Your task to perform on an android device: turn on showing notifications on the lock screen Image 0: 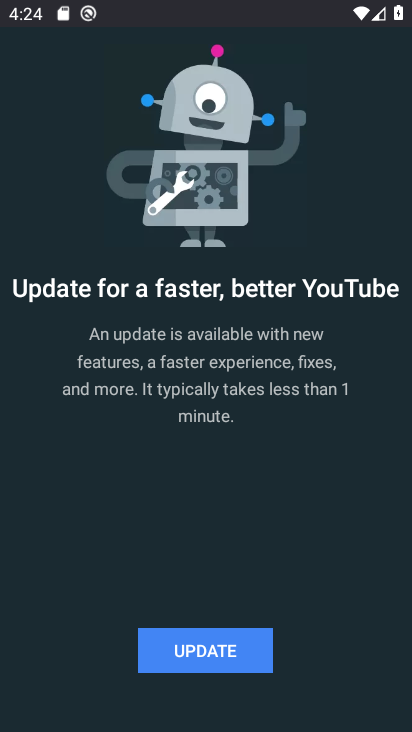
Step 0: press back button
Your task to perform on an android device: turn on showing notifications on the lock screen Image 1: 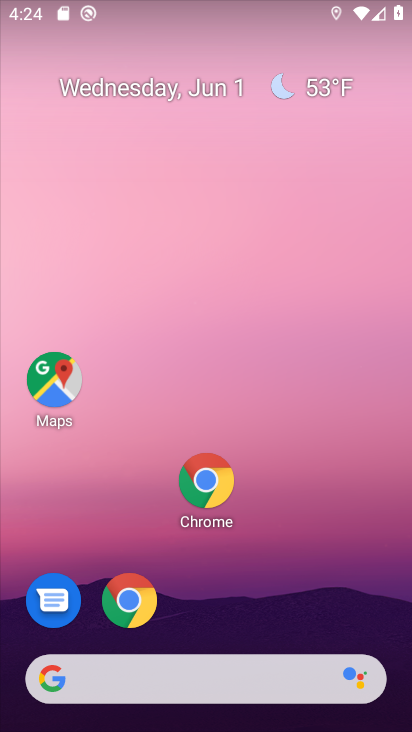
Step 1: drag from (293, 729) to (141, 97)
Your task to perform on an android device: turn on showing notifications on the lock screen Image 2: 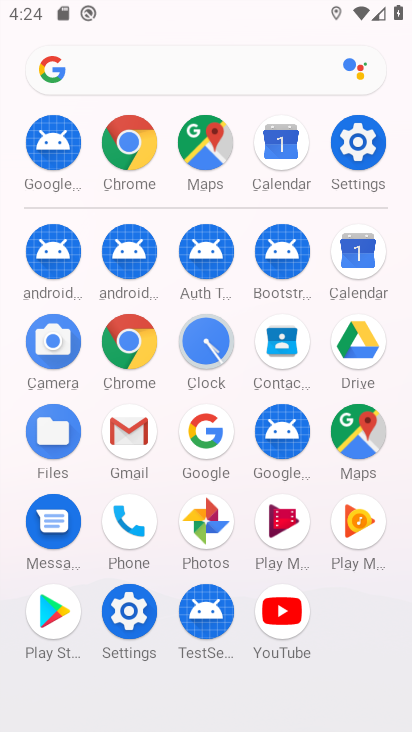
Step 2: click (358, 141)
Your task to perform on an android device: turn on showing notifications on the lock screen Image 3: 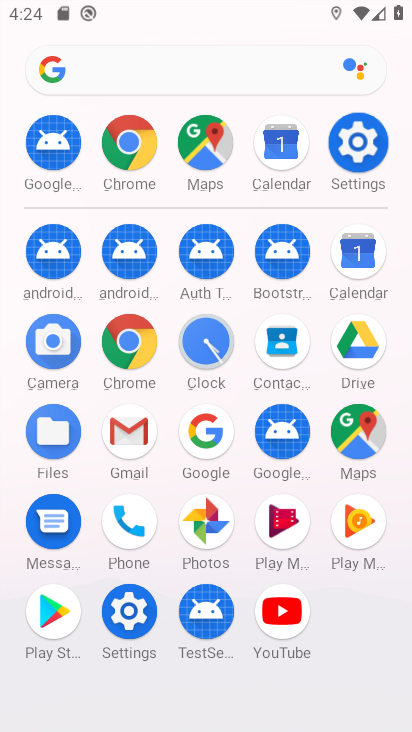
Step 3: click (358, 141)
Your task to perform on an android device: turn on showing notifications on the lock screen Image 4: 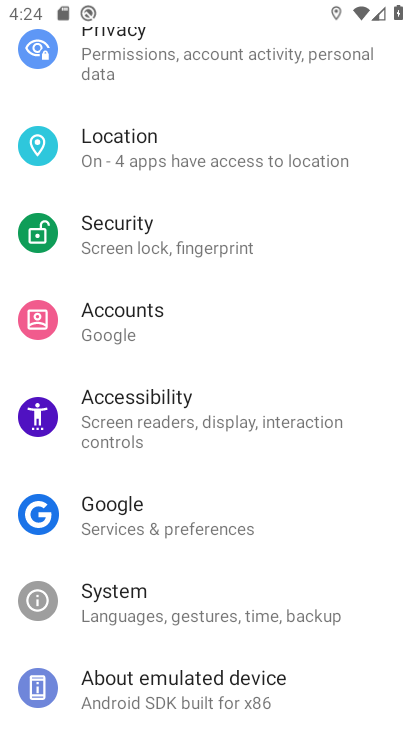
Step 4: click (358, 141)
Your task to perform on an android device: turn on showing notifications on the lock screen Image 5: 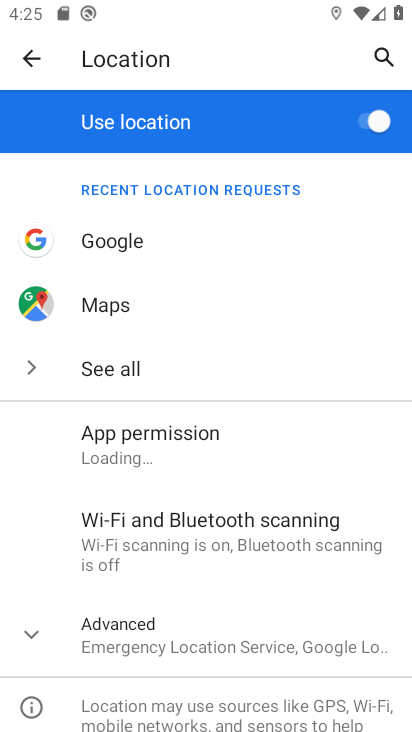
Step 5: click (32, 58)
Your task to perform on an android device: turn on showing notifications on the lock screen Image 6: 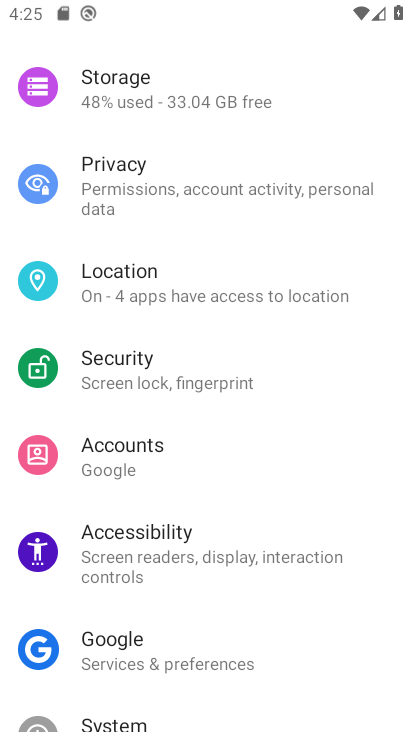
Step 6: drag from (170, 222) to (177, 493)
Your task to perform on an android device: turn on showing notifications on the lock screen Image 7: 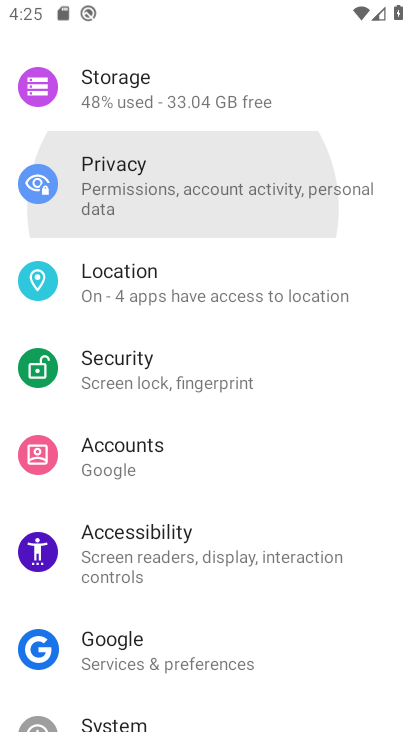
Step 7: drag from (213, 143) to (181, 498)
Your task to perform on an android device: turn on showing notifications on the lock screen Image 8: 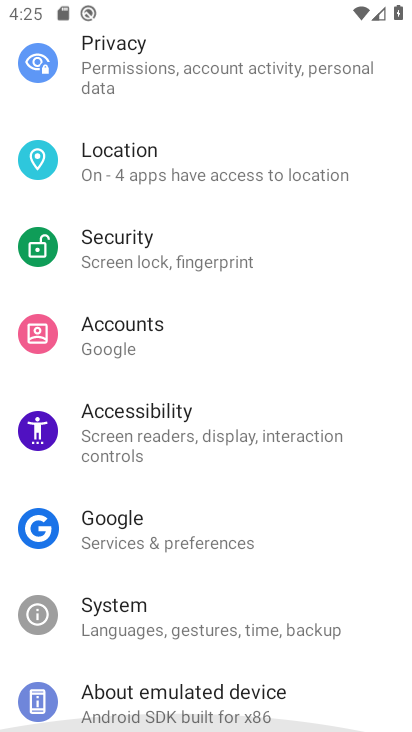
Step 8: drag from (130, 184) to (204, 416)
Your task to perform on an android device: turn on showing notifications on the lock screen Image 9: 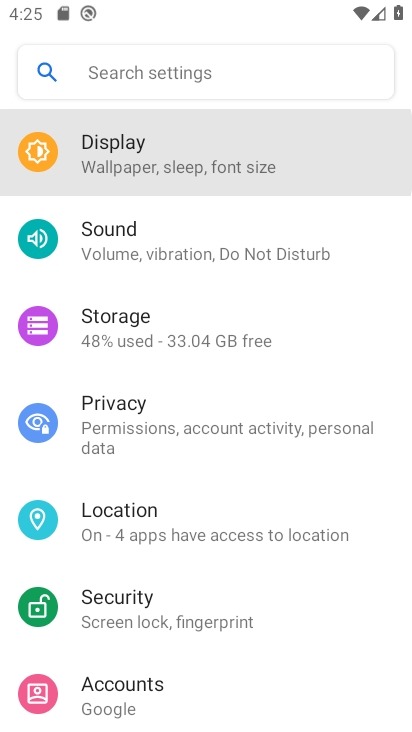
Step 9: drag from (200, 187) to (225, 487)
Your task to perform on an android device: turn on showing notifications on the lock screen Image 10: 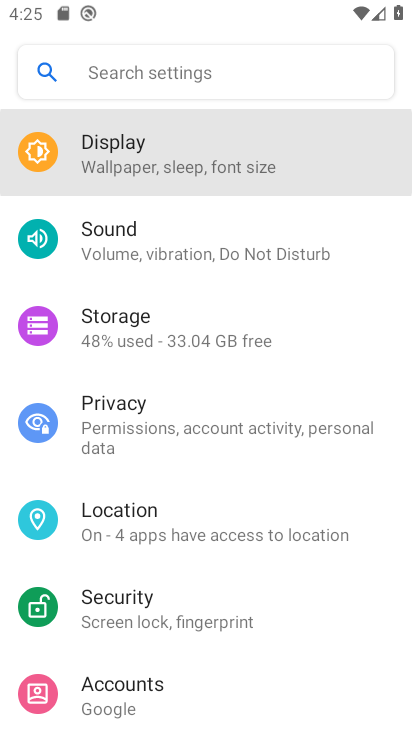
Step 10: drag from (146, 220) to (212, 515)
Your task to perform on an android device: turn on showing notifications on the lock screen Image 11: 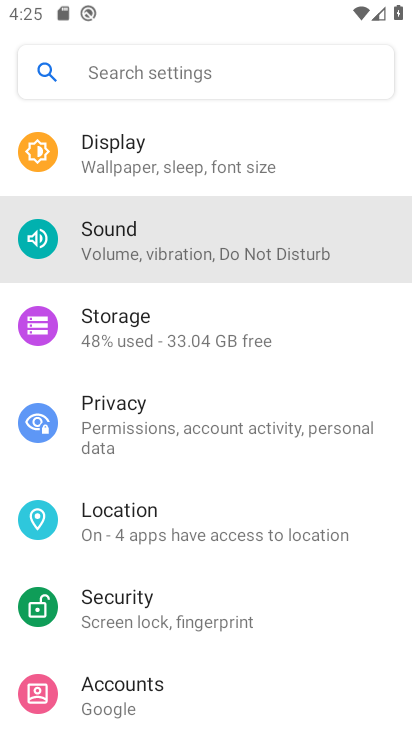
Step 11: drag from (164, 253) to (221, 494)
Your task to perform on an android device: turn on showing notifications on the lock screen Image 12: 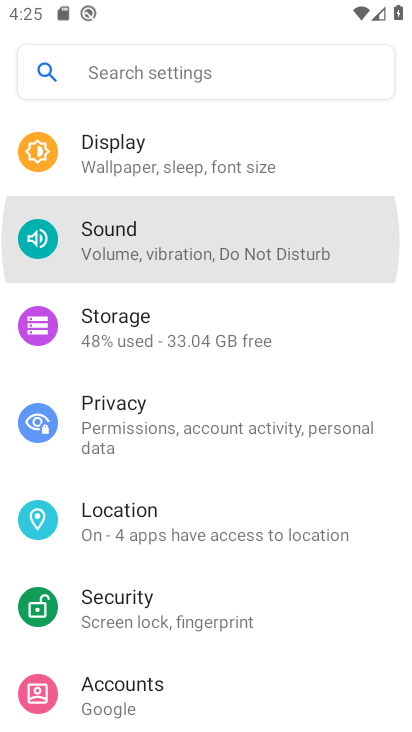
Step 12: drag from (194, 318) to (185, 467)
Your task to perform on an android device: turn on showing notifications on the lock screen Image 13: 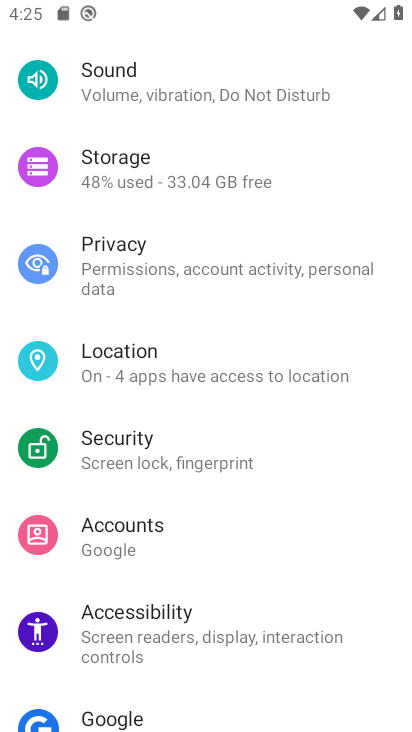
Step 13: drag from (98, 224) to (184, 522)
Your task to perform on an android device: turn on showing notifications on the lock screen Image 14: 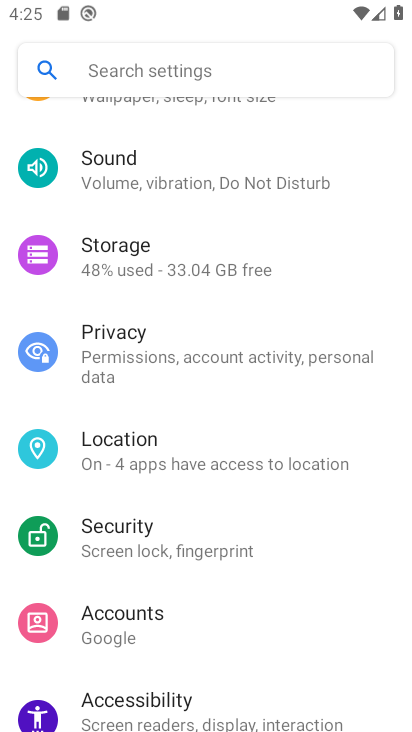
Step 14: drag from (178, 551) to (145, 226)
Your task to perform on an android device: turn on showing notifications on the lock screen Image 15: 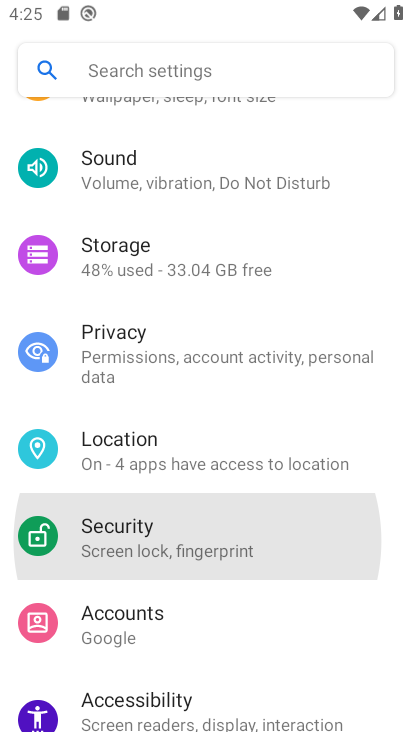
Step 15: drag from (177, 505) to (128, 189)
Your task to perform on an android device: turn on showing notifications on the lock screen Image 16: 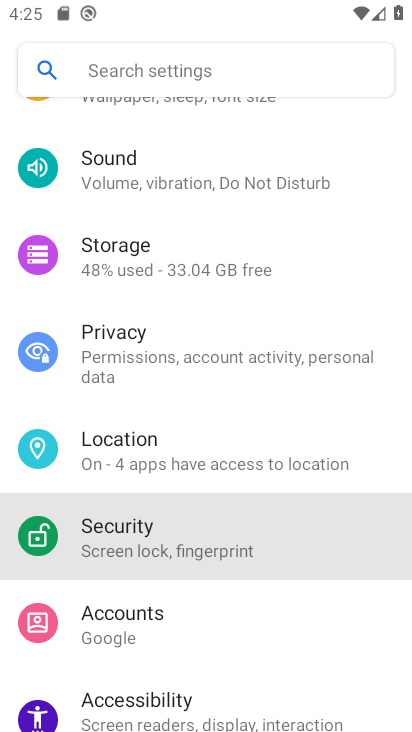
Step 16: drag from (168, 455) to (149, 251)
Your task to perform on an android device: turn on showing notifications on the lock screen Image 17: 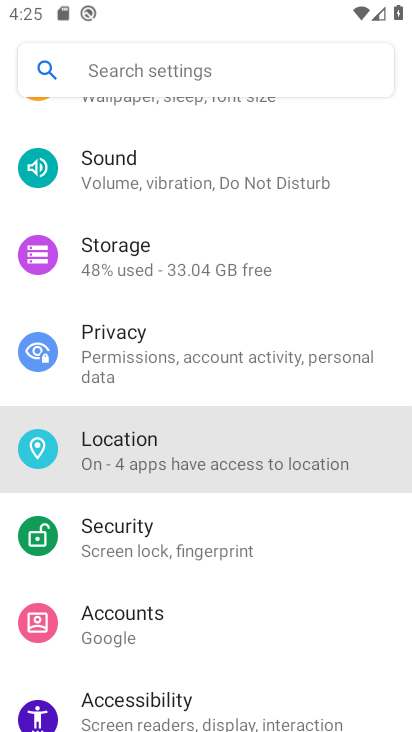
Step 17: drag from (209, 522) to (109, 104)
Your task to perform on an android device: turn on showing notifications on the lock screen Image 18: 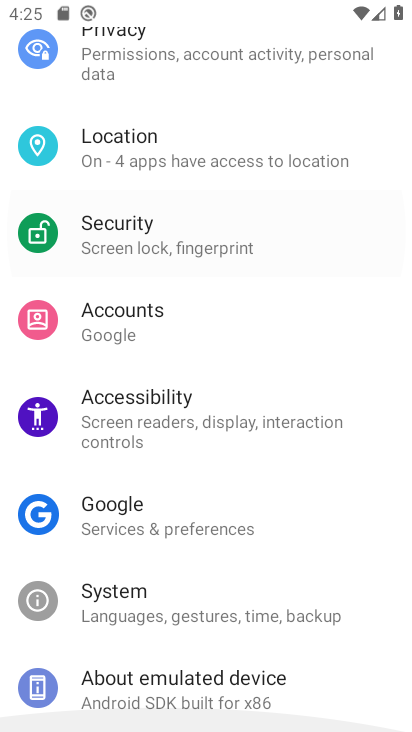
Step 18: drag from (235, 472) to (166, 108)
Your task to perform on an android device: turn on showing notifications on the lock screen Image 19: 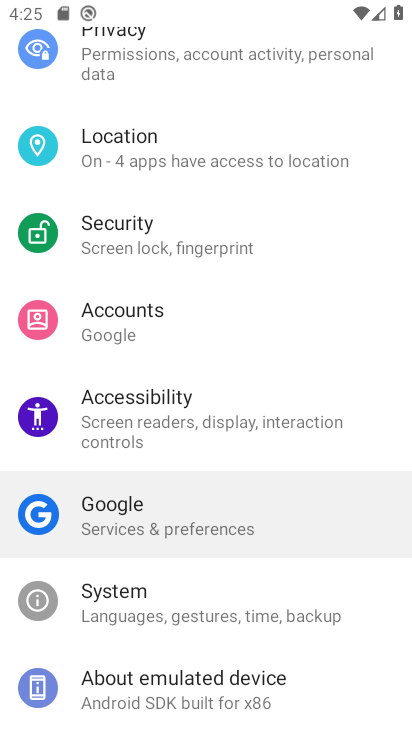
Step 19: drag from (233, 499) to (143, 202)
Your task to perform on an android device: turn on showing notifications on the lock screen Image 20: 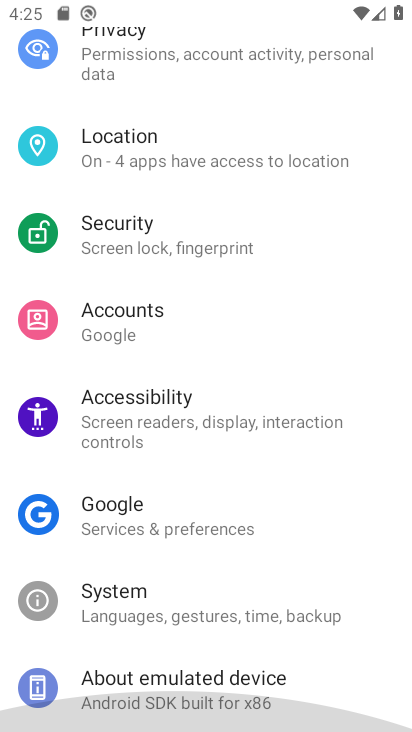
Step 20: drag from (256, 551) to (143, 252)
Your task to perform on an android device: turn on showing notifications on the lock screen Image 21: 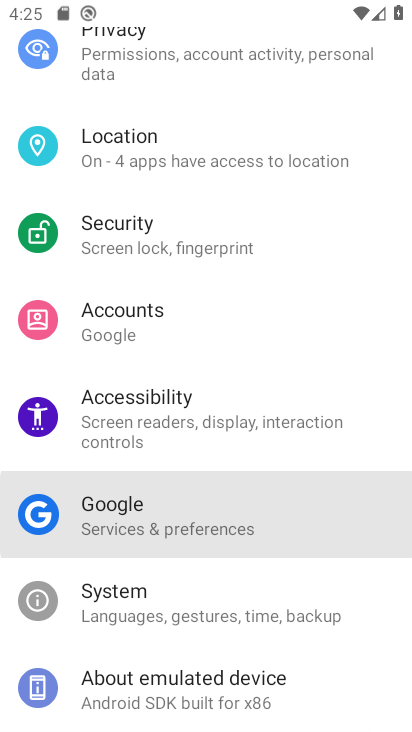
Step 21: drag from (215, 562) to (135, 247)
Your task to perform on an android device: turn on showing notifications on the lock screen Image 22: 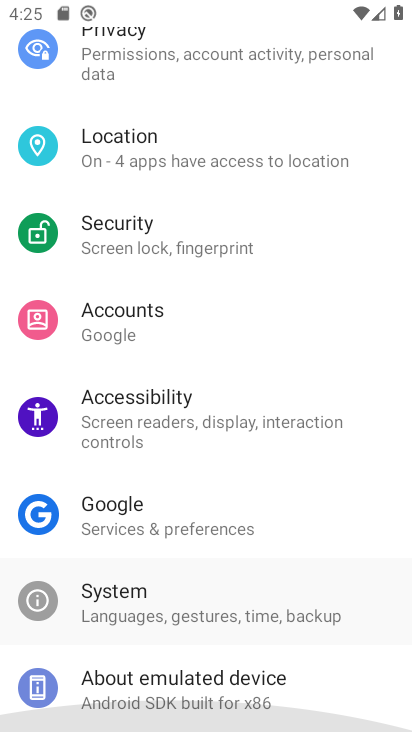
Step 22: drag from (212, 554) to (118, 153)
Your task to perform on an android device: turn on showing notifications on the lock screen Image 23: 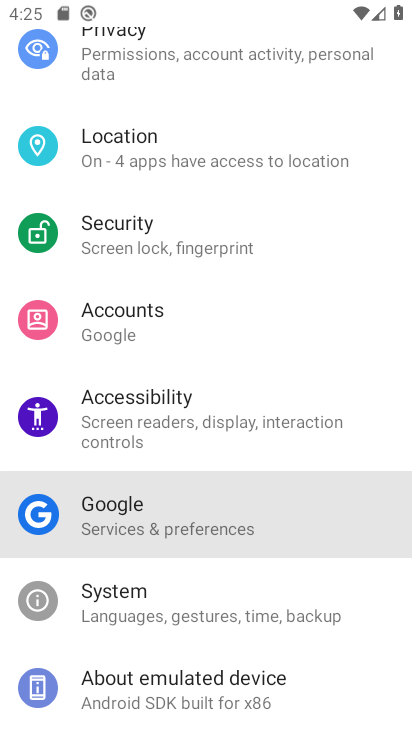
Step 23: drag from (137, 417) to (98, 153)
Your task to perform on an android device: turn on showing notifications on the lock screen Image 24: 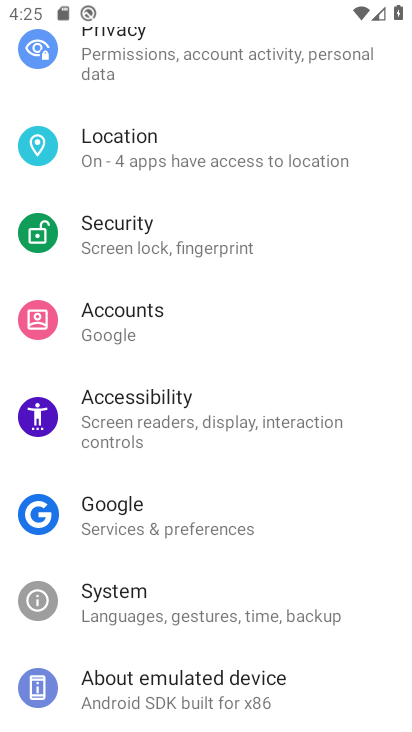
Step 24: press back button
Your task to perform on an android device: turn on showing notifications on the lock screen Image 25: 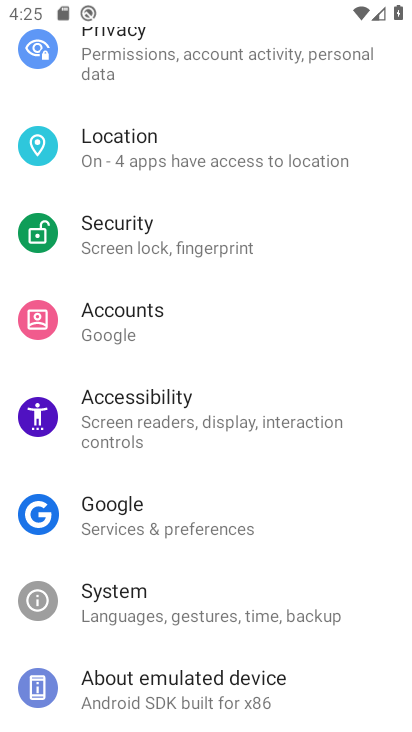
Step 25: press back button
Your task to perform on an android device: turn on showing notifications on the lock screen Image 26: 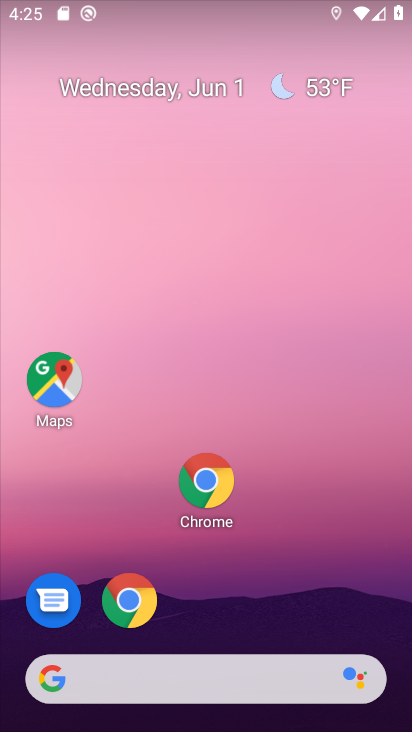
Step 26: drag from (265, 668) to (132, 126)
Your task to perform on an android device: turn on showing notifications on the lock screen Image 27: 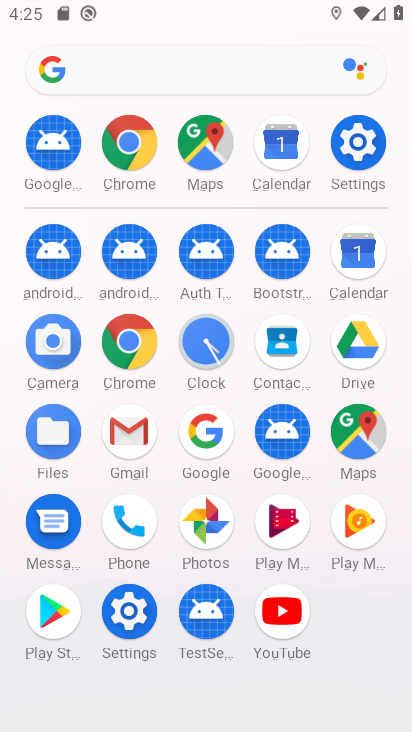
Step 27: click (357, 143)
Your task to perform on an android device: turn on showing notifications on the lock screen Image 28: 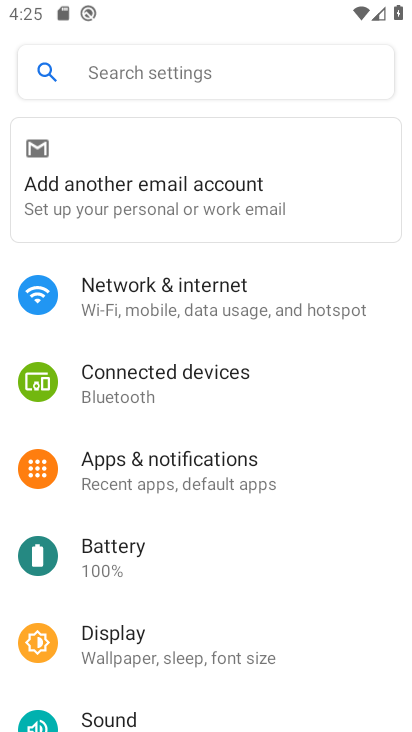
Step 28: click (149, 465)
Your task to perform on an android device: turn on showing notifications on the lock screen Image 29: 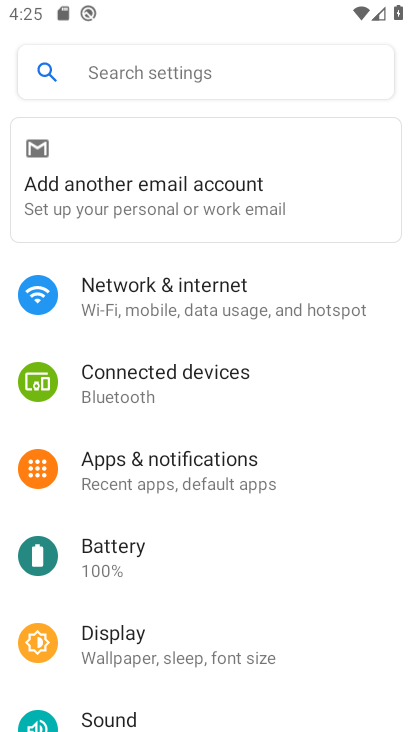
Step 29: click (148, 466)
Your task to perform on an android device: turn on showing notifications on the lock screen Image 30: 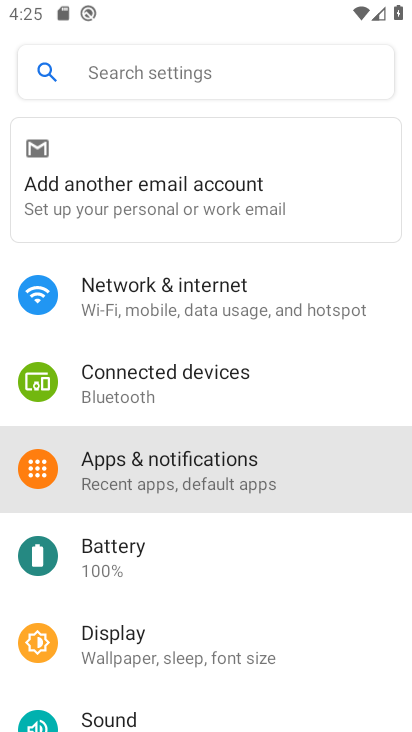
Step 30: click (148, 466)
Your task to perform on an android device: turn on showing notifications on the lock screen Image 31: 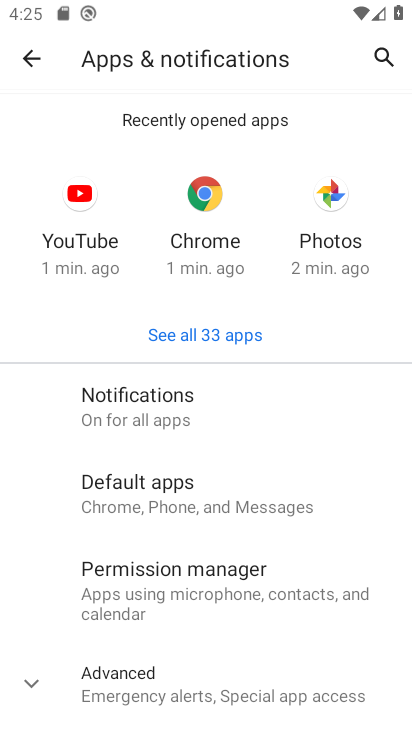
Step 31: click (136, 394)
Your task to perform on an android device: turn on showing notifications on the lock screen Image 32: 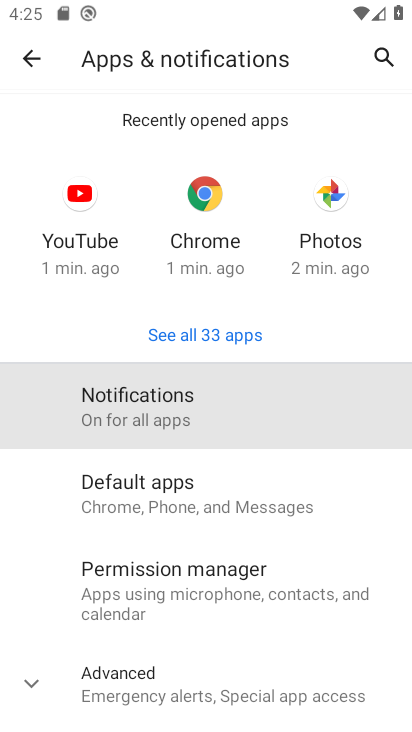
Step 32: click (131, 404)
Your task to perform on an android device: turn on showing notifications on the lock screen Image 33: 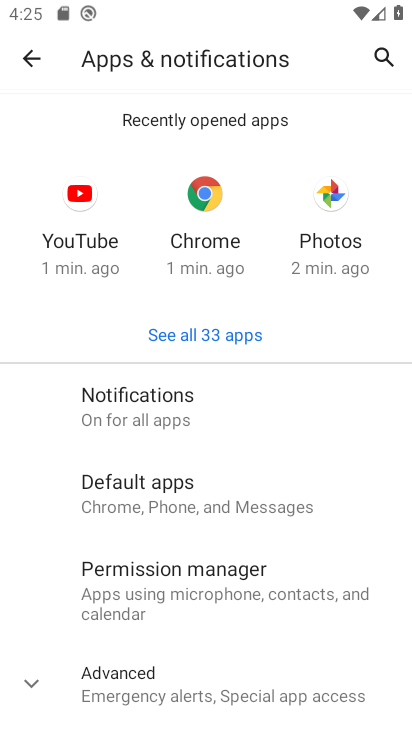
Step 33: click (132, 410)
Your task to perform on an android device: turn on showing notifications on the lock screen Image 34: 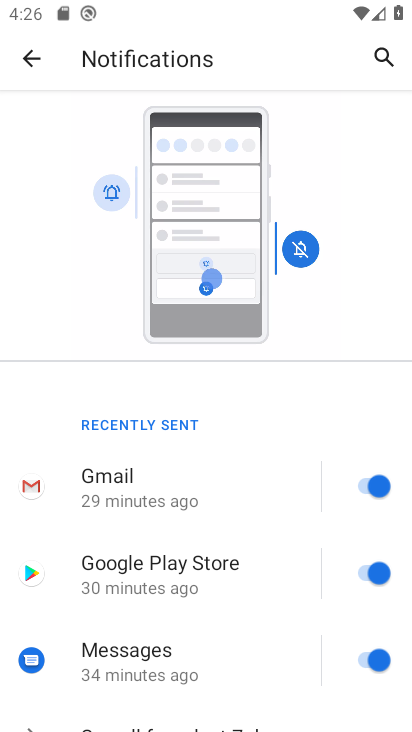
Step 34: drag from (221, 623) to (130, 133)
Your task to perform on an android device: turn on showing notifications on the lock screen Image 35: 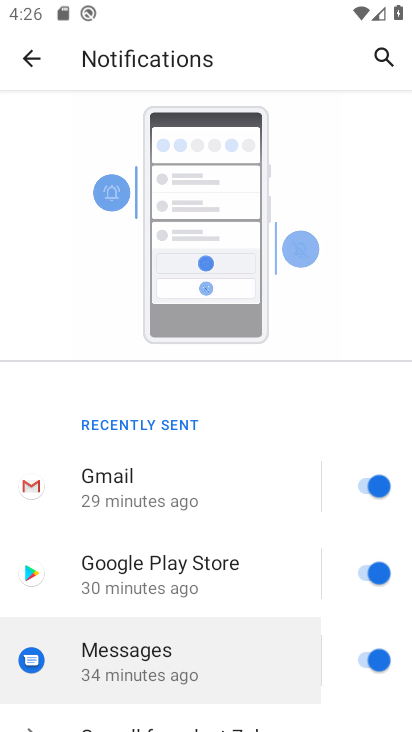
Step 35: drag from (228, 555) to (167, 113)
Your task to perform on an android device: turn on showing notifications on the lock screen Image 36: 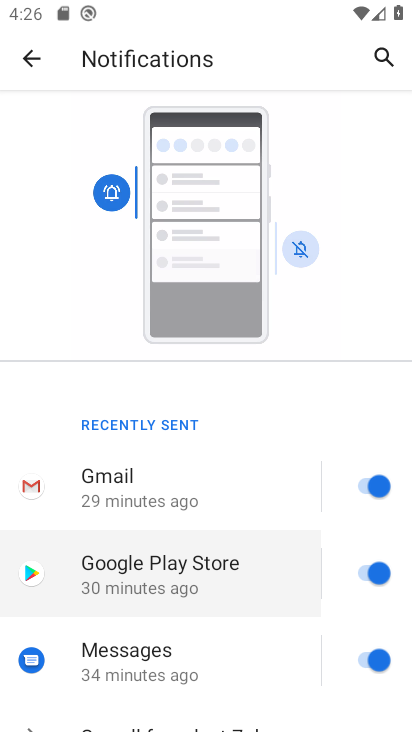
Step 36: drag from (201, 512) to (120, 87)
Your task to perform on an android device: turn on showing notifications on the lock screen Image 37: 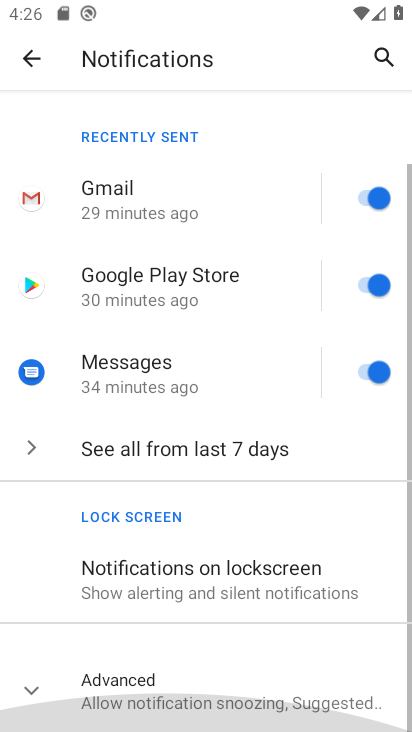
Step 37: drag from (196, 540) to (139, 95)
Your task to perform on an android device: turn on showing notifications on the lock screen Image 38: 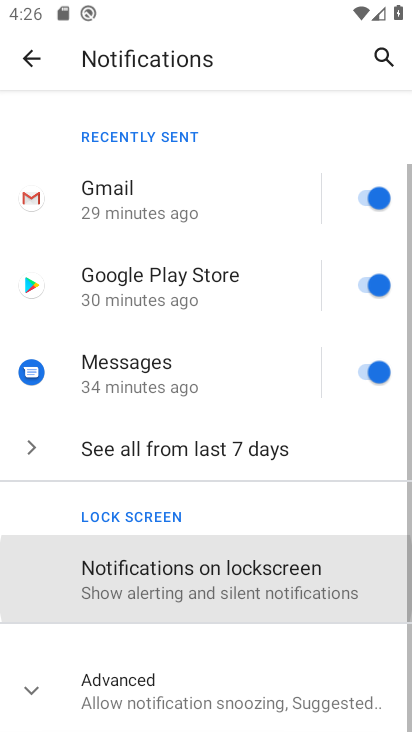
Step 38: drag from (204, 553) to (143, 45)
Your task to perform on an android device: turn on showing notifications on the lock screen Image 39: 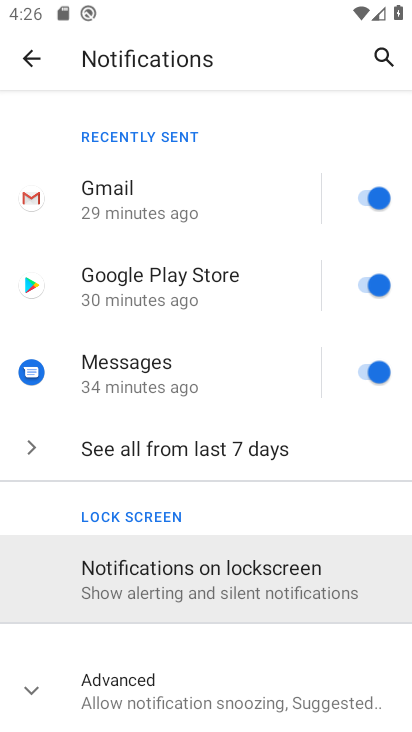
Step 39: drag from (222, 500) to (169, 132)
Your task to perform on an android device: turn on showing notifications on the lock screen Image 40: 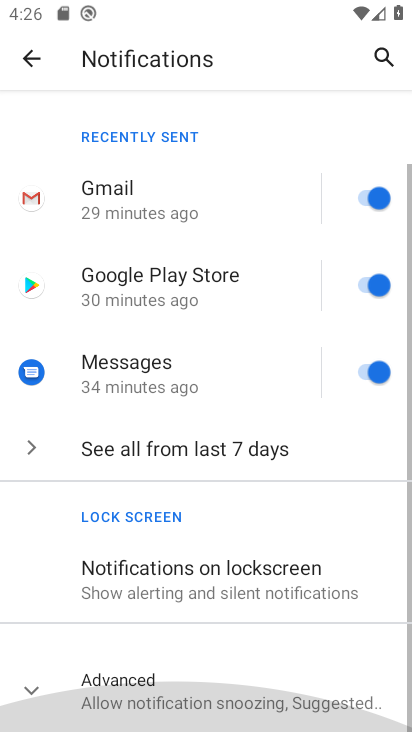
Step 40: drag from (214, 644) to (169, 232)
Your task to perform on an android device: turn on showing notifications on the lock screen Image 41: 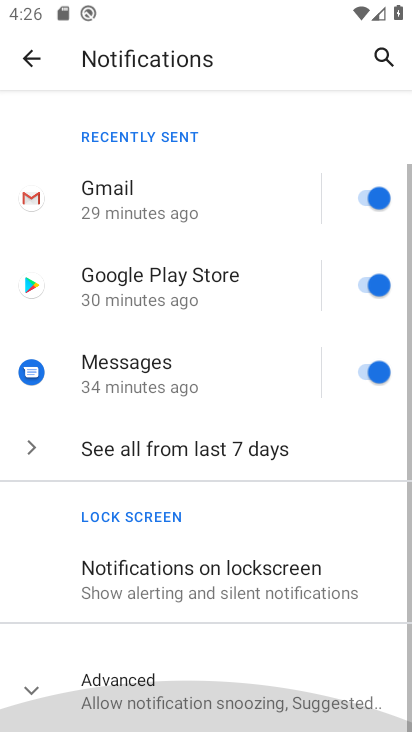
Step 41: drag from (241, 575) to (151, 40)
Your task to perform on an android device: turn on showing notifications on the lock screen Image 42: 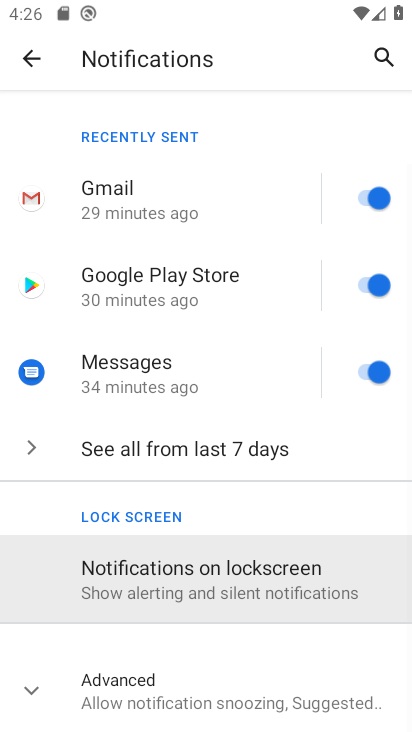
Step 42: drag from (265, 491) to (195, 85)
Your task to perform on an android device: turn on showing notifications on the lock screen Image 43: 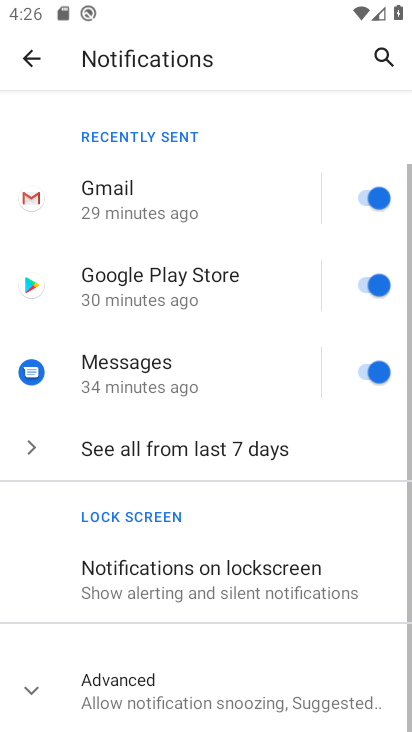
Step 43: drag from (254, 566) to (149, 53)
Your task to perform on an android device: turn on showing notifications on the lock screen Image 44: 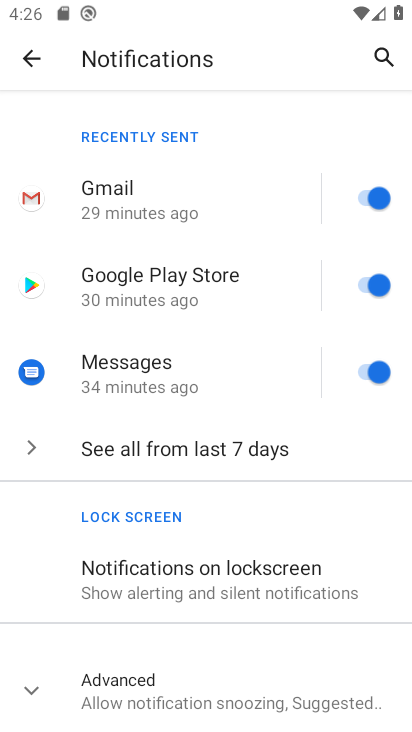
Step 44: drag from (233, 563) to (108, 135)
Your task to perform on an android device: turn on showing notifications on the lock screen Image 45: 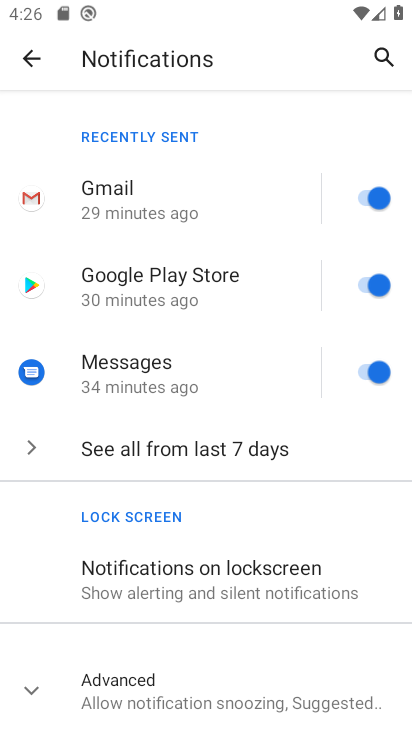
Step 45: click (158, 574)
Your task to perform on an android device: turn on showing notifications on the lock screen Image 46: 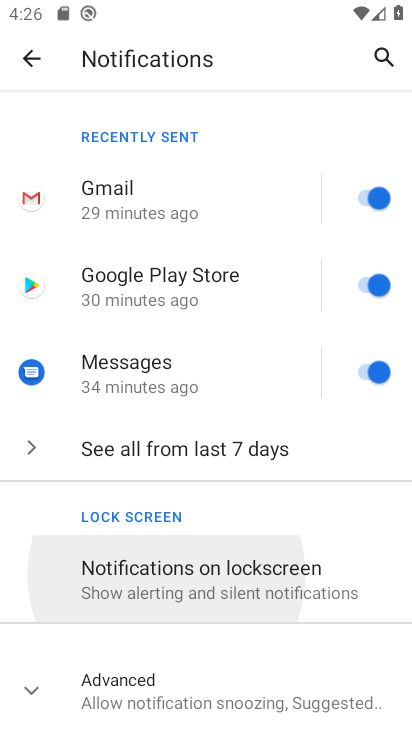
Step 46: click (158, 574)
Your task to perform on an android device: turn on showing notifications on the lock screen Image 47: 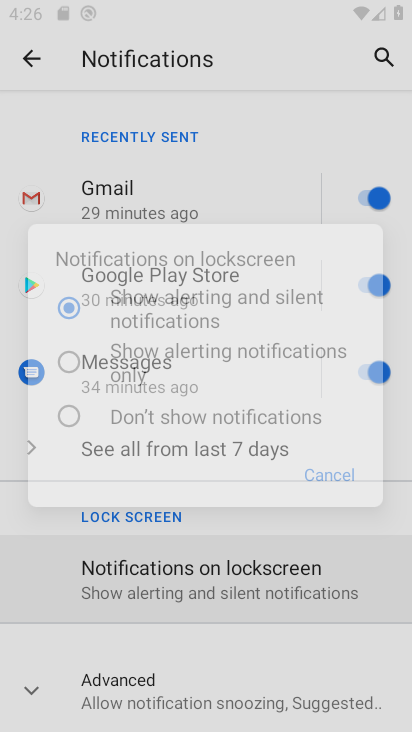
Step 47: click (158, 575)
Your task to perform on an android device: turn on showing notifications on the lock screen Image 48: 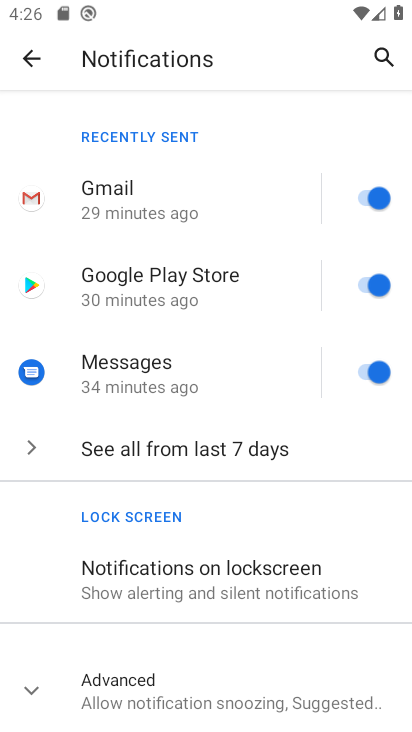
Step 48: task complete